Your task to perform on an android device: uninstall "Messages" Image 0: 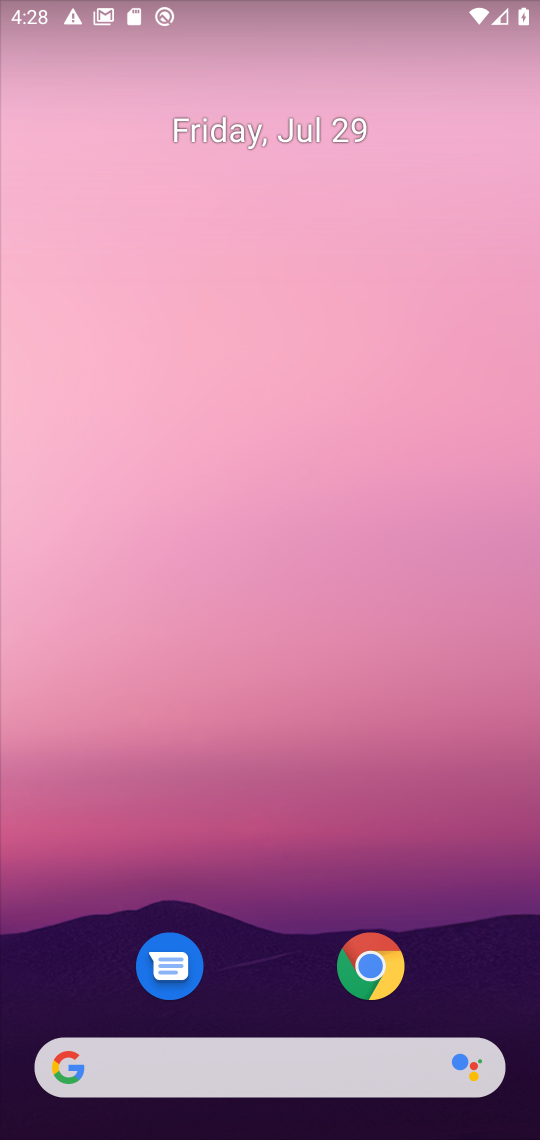
Step 0: click (171, 962)
Your task to perform on an android device: uninstall "Messages" Image 1: 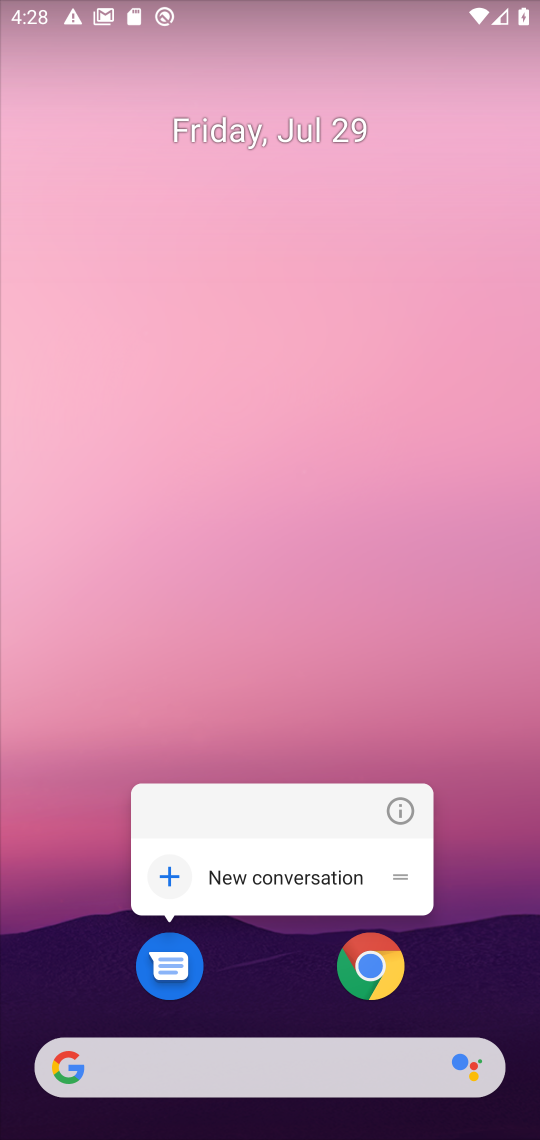
Step 1: click (394, 813)
Your task to perform on an android device: uninstall "Messages" Image 2: 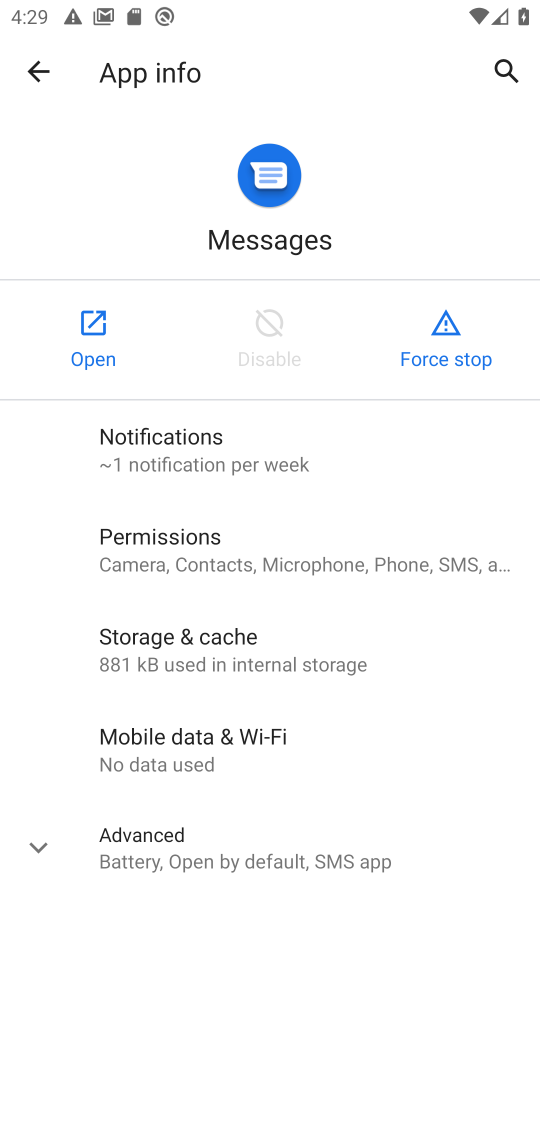
Step 2: task complete